Your task to perform on an android device: turn on wifi Image 0: 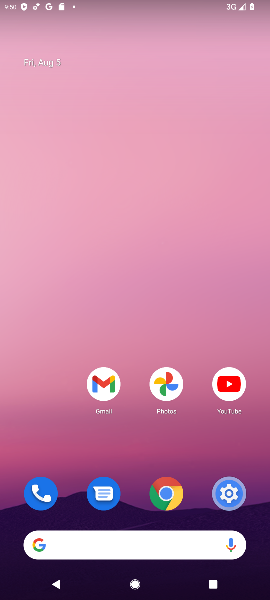
Step 0: press home button
Your task to perform on an android device: turn on wifi Image 1: 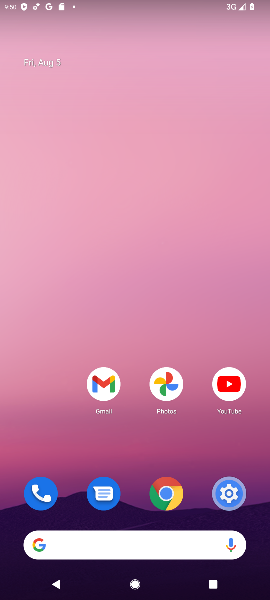
Step 1: drag from (137, 511) to (143, 23)
Your task to perform on an android device: turn on wifi Image 2: 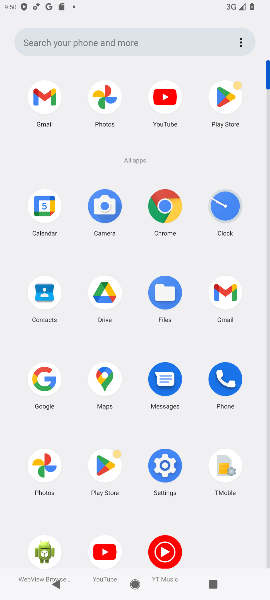
Step 2: click (162, 459)
Your task to perform on an android device: turn on wifi Image 3: 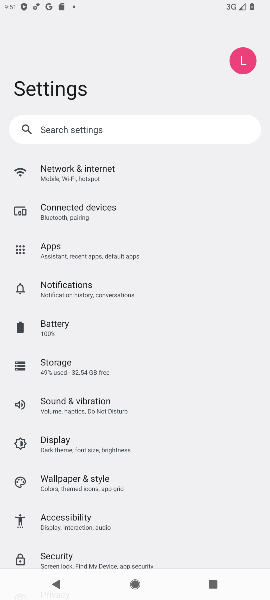
Step 3: click (103, 167)
Your task to perform on an android device: turn on wifi Image 4: 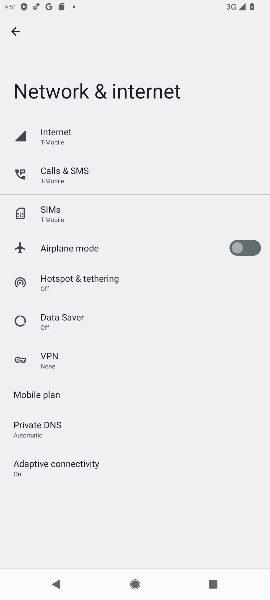
Step 4: click (72, 137)
Your task to perform on an android device: turn on wifi Image 5: 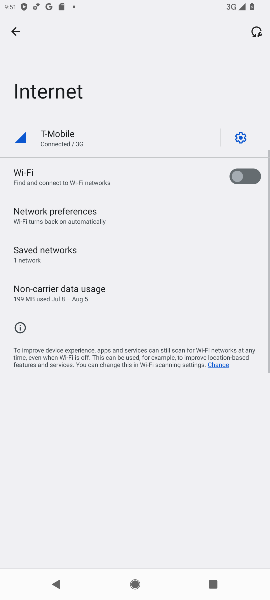
Step 5: click (248, 172)
Your task to perform on an android device: turn on wifi Image 6: 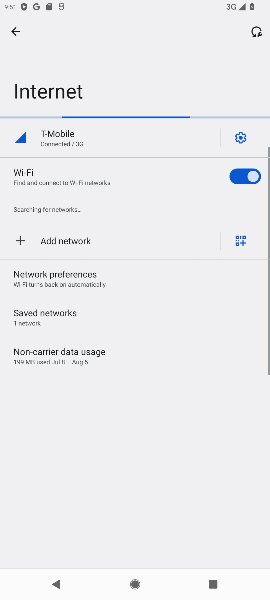
Step 6: task complete